Your task to perform on an android device: change alarm snooze length Image 0: 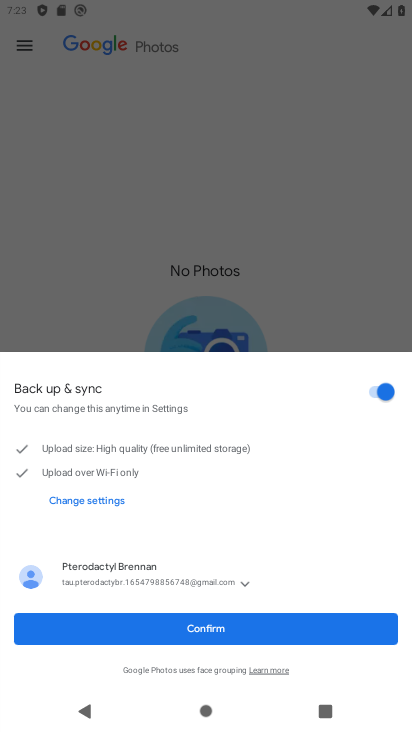
Step 0: press home button
Your task to perform on an android device: change alarm snooze length Image 1: 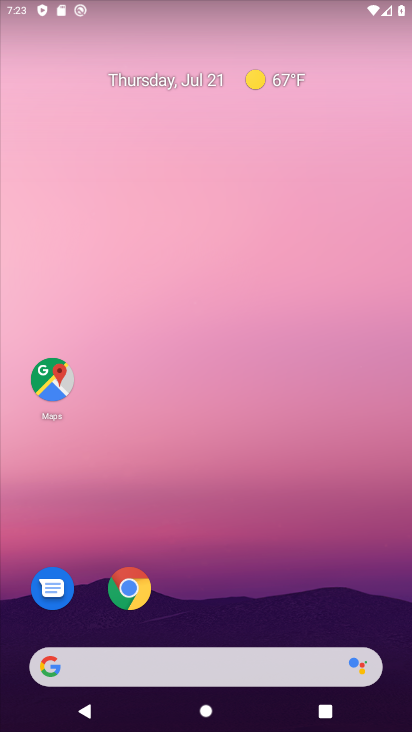
Step 1: drag from (260, 651) to (334, 84)
Your task to perform on an android device: change alarm snooze length Image 2: 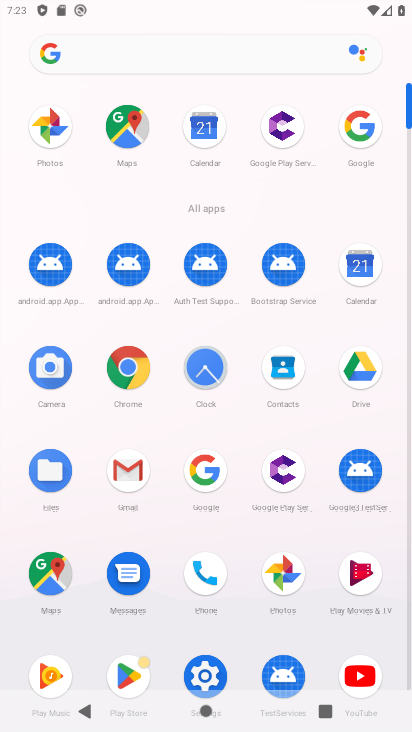
Step 2: click (211, 366)
Your task to perform on an android device: change alarm snooze length Image 3: 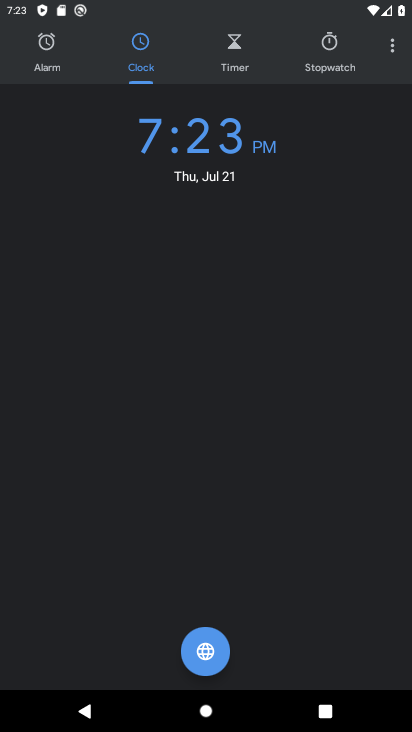
Step 3: click (394, 46)
Your task to perform on an android device: change alarm snooze length Image 4: 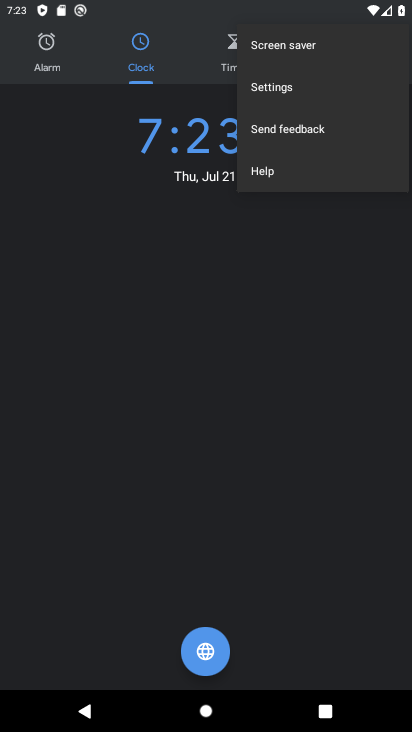
Step 4: click (272, 83)
Your task to perform on an android device: change alarm snooze length Image 5: 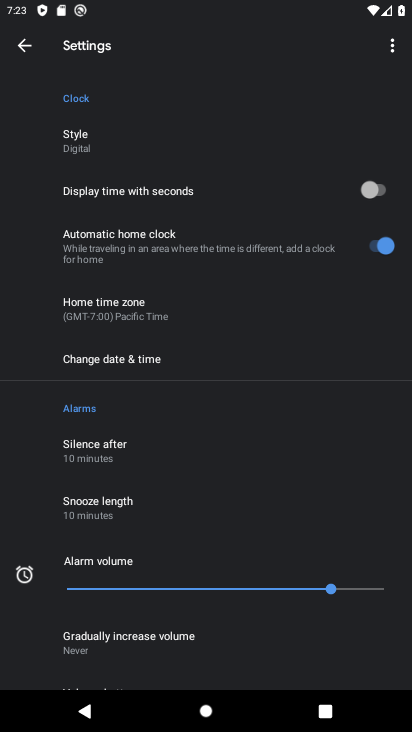
Step 5: click (108, 504)
Your task to perform on an android device: change alarm snooze length Image 6: 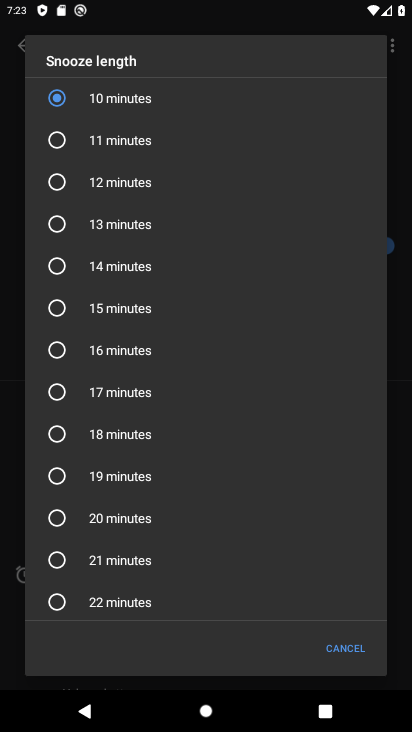
Step 6: click (139, 272)
Your task to perform on an android device: change alarm snooze length Image 7: 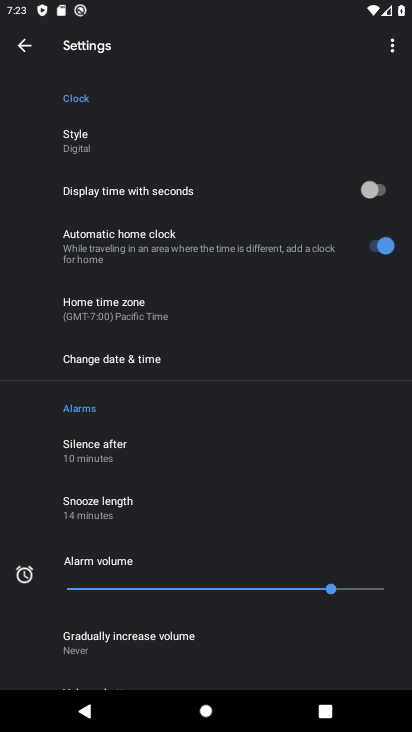
Step 7: task complete